Your task to perform on an android device: open app "Life360: Find Family & Friends" (install if not already installed), go to login, and select forgot password Image 0: 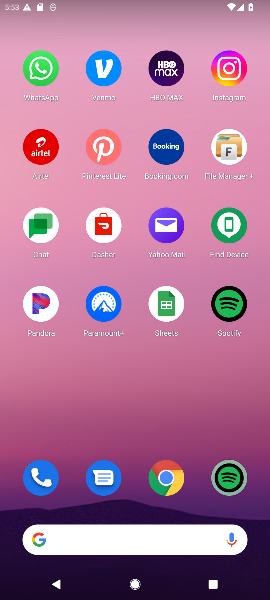
Step 0: drag from (136, 410) to (155, 54)
Your task to perform on an android device: open app "Life360: Find Family & Friends" (install if not already installed), go to login, and select forgot password Image 1: 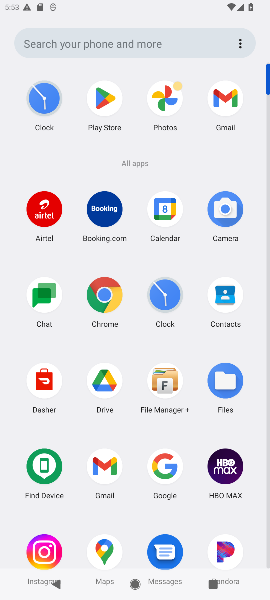
Step 1: click (104, 91)
Your task to perform on an android device: open app "Life360: Find Family & Friends" (install if not already installed), go to login, and select forgot password Image 2: 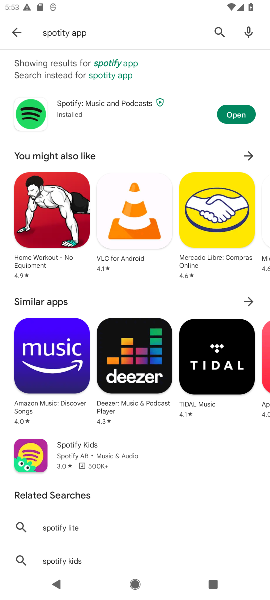
Step 2: click (219, 25)
Your task to perform on an android device: open app "Life360: Find Family & Friends" (install if not already installed), go to login, and select forgot password Image 3: 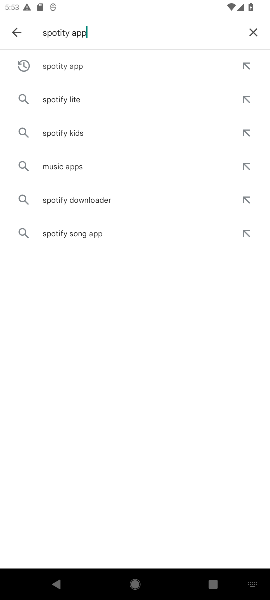
Step 3: click (253, 27)
Your task to perform on an android device: open app "Life360: Find Family & Friends" (install if not already installed), go to login, and select forgot password Image 4: 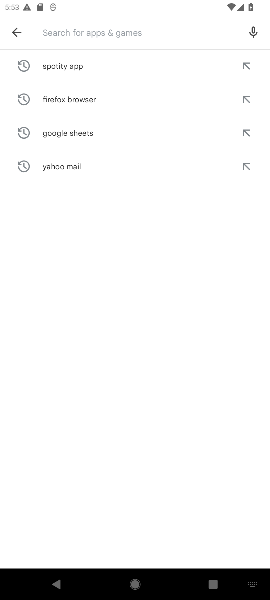
Step 4: type "Life360 "
Your task to perform on an android device: open app "Life360: Find Family & Friends" (install if not already installed), go to login, and select forgot password Image 5: 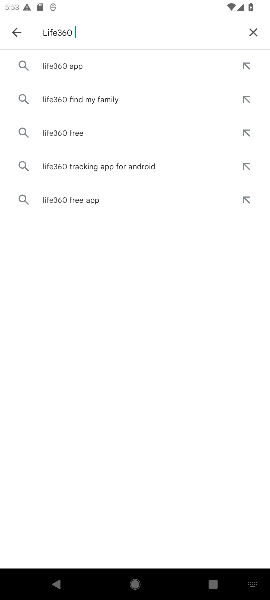
Step 5: click (80, 99)
Your task to perform on an android device: open app "Life360: Find Family & Friends" (install if not already installed), go to login, and select forgot password Image 6: 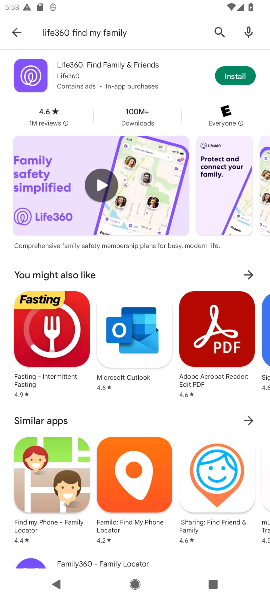
Step 6: click (242, 78)
Your task to perform on an android device: open app "Life360: Find Family & Friends" (install if not already installed), go to login, and select forgot password Image 7: 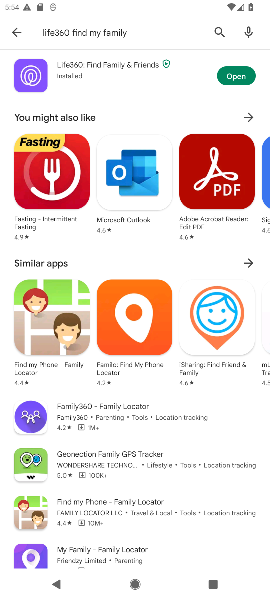
Step 7: click (246, 72)
Your task to perform on an android device: open app "Life360: Find Family & Friends" (install if not already installed), go to login, and select forgot password Image 8: 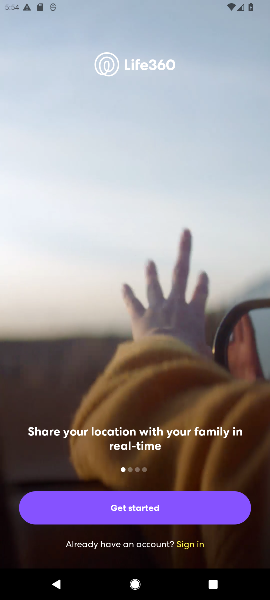
Step 8: click (227, 511)
Your task to perform on an android device: open app "Life360: Find Family & Friends" (install if not already installed), go to login, and select forgot password Image 9: 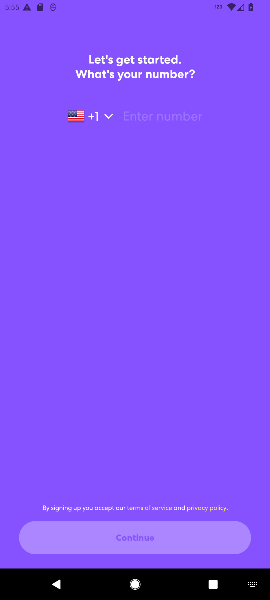
Step 9: type "9876543"
Your task to perform on an android device: open app "Life360: Find Family & Friends" (install if not already installed), go to login, and select forgot password Image 10: 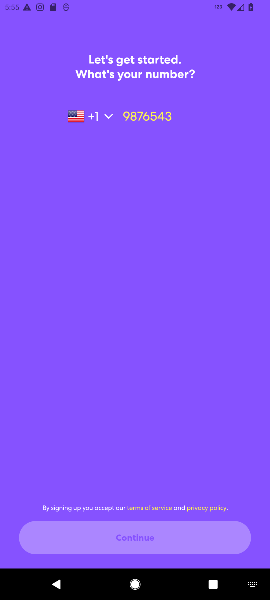
Step 10: click (161, 536)
Your task to perform on an android device: open app "Life360: Find Family & Friends" (install if not already installed), go to login, and select forgot password Image 11: 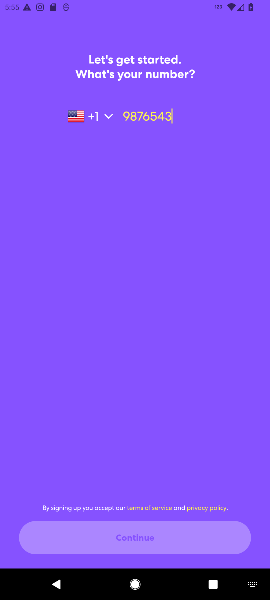
Step 11: type "7654"
Your task to perform on an android device: open app "Life360: Find Family & Friends" (install if not already installed), go to login, and select forgot password Image 12: 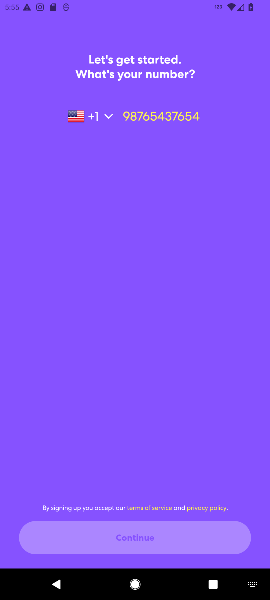
Step 12: click (201, 543)
Your task to perform on an android device: open app "Life360: Find Family & Friends" (install if not already installed), go to login, and select forgot password Image 13: 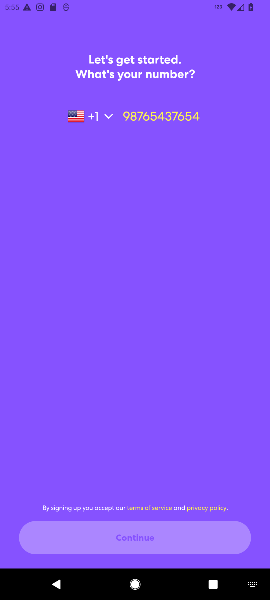
Step 13: type "88765"
Your task to perform on an android device: open app "Life360: Find Family & Friends" (install if not already installed), go to login, and select forgot password Image 14: 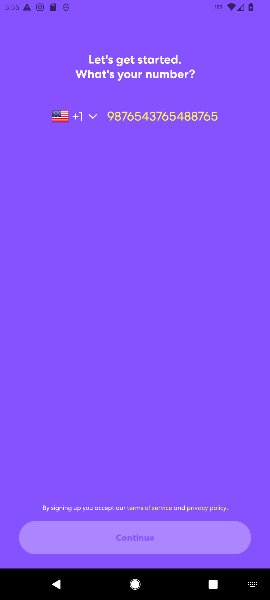
Step 14: click (175, 541)
Your task to perform on an android device: open app "Life360: Find Family & Friends" (install if not already installed), go to login, and select forgot password Image 15: 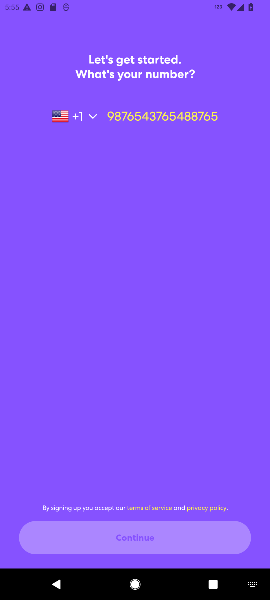
Step 15: task complete